Your task to perform on an android device: toggle pop-ups in chrome Image 0: 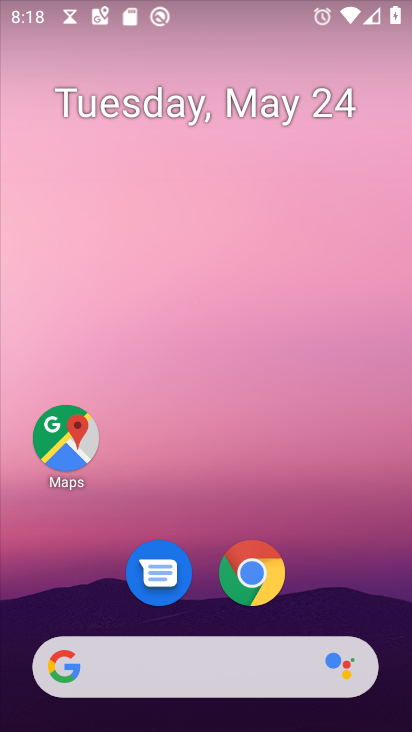
Step 0: drag from (348, 422) to (301, 131)
Your task to perform on an android device: toggle pop-ups in chrome Image 1: 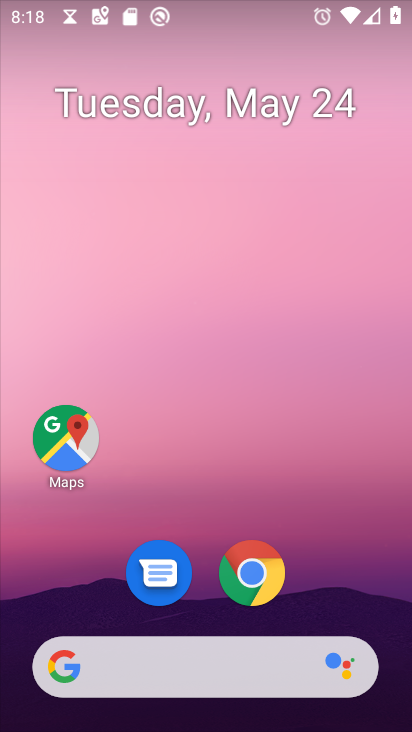
Step 1: click (252, 598)
Your task to perform on an android device: toggle pop-ups in chrome Image 2: 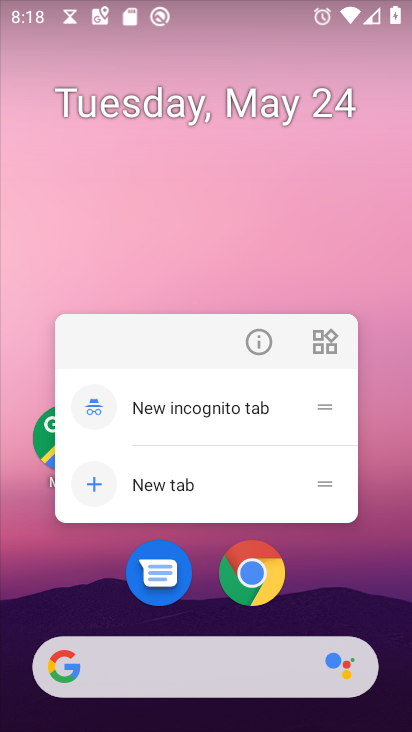
Step 2: click (263, 576)
Your task to perform on an android device: toggle pop-ups in chrome Image 3: 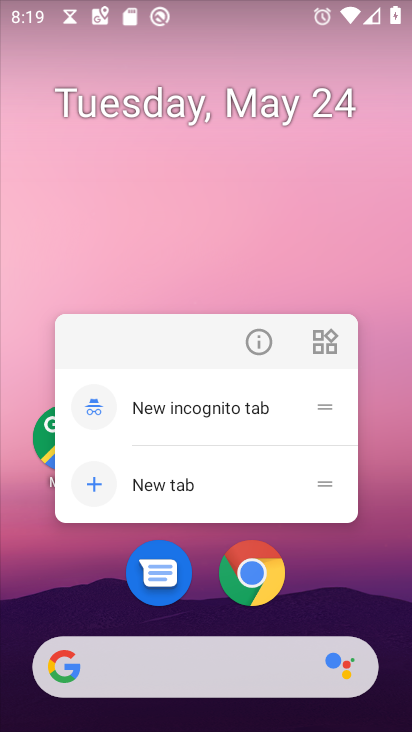
Step 3: click (249, 589)
Your task to perform on an android device: toggle pop-ups in chrome Image 4: 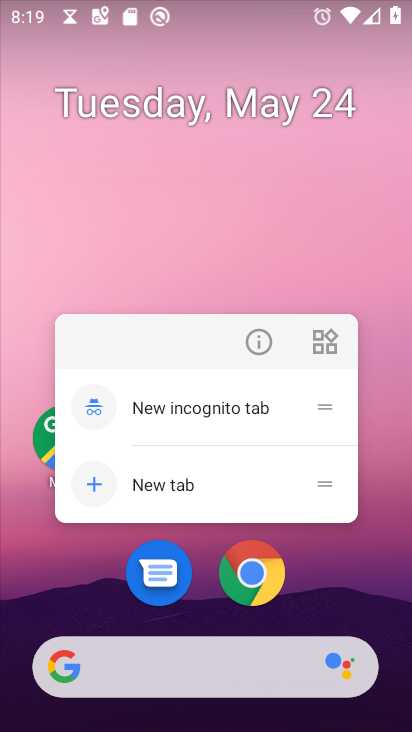
Step 4: click (249, 589)
Your task to perform on an android device: toggle pop-ups in chrome Image 5: 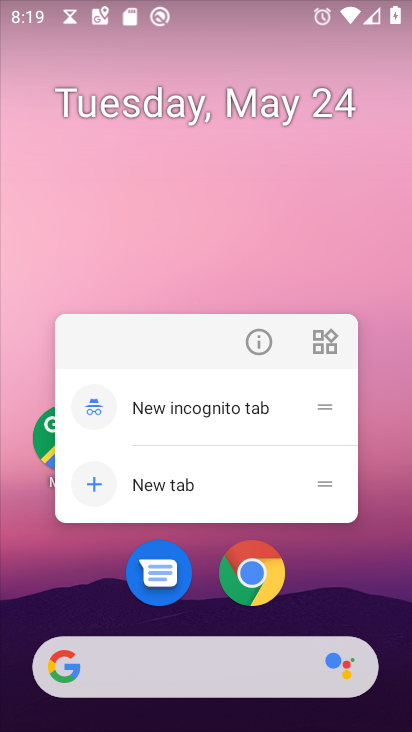
Step 5: click (278, 582)
Your task to perform on an android device: toggle pop-ups in chrome Image 6: 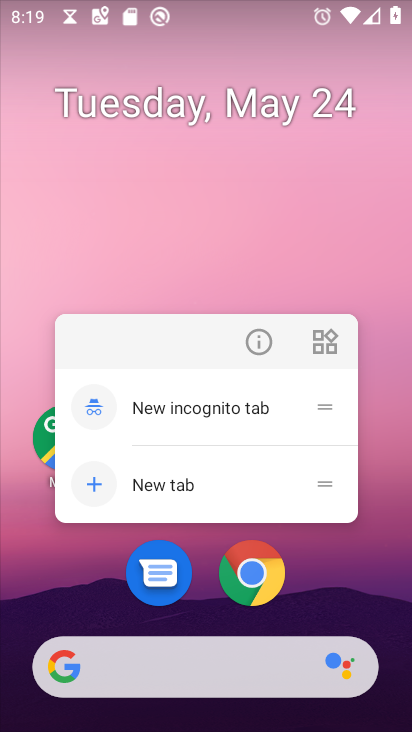
Step 6: click (278, 580)
Your task to perform on an android device: toggle pop-ups in chrome Image 7: 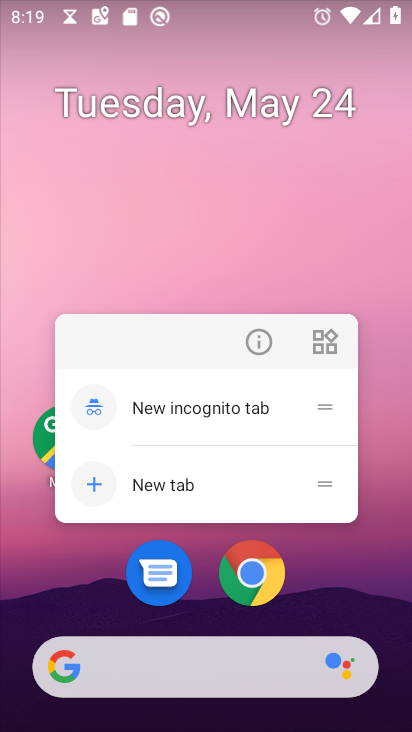
Step 7: click (278, 579)
Your task to perform on an android device: toggle pop-ups in chrome Image 8: 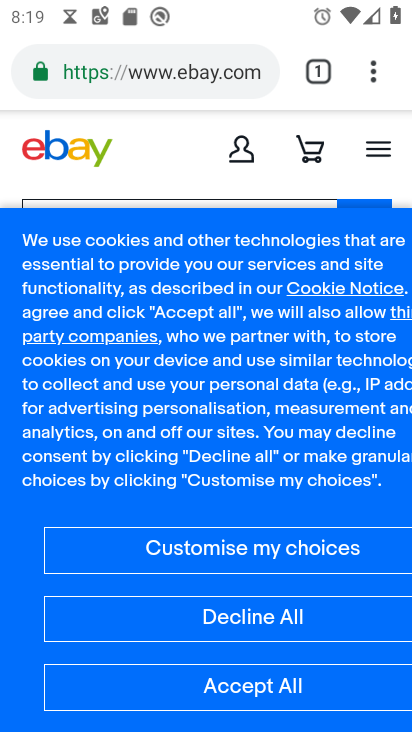
Step 8: click (376, 77)
Your task to perform on an android device: toggle pop-ups in chrome Image 9: 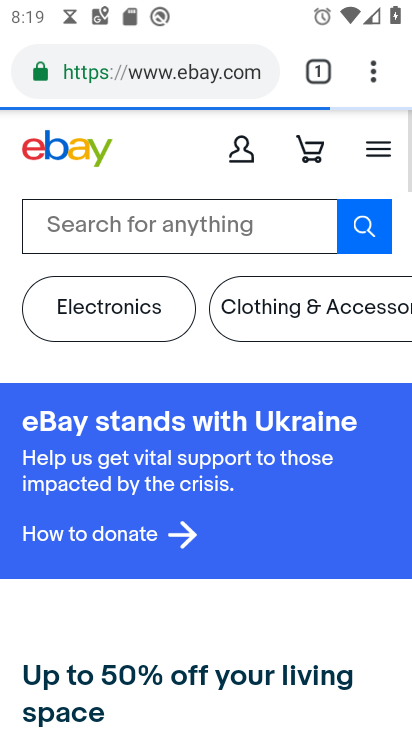
Step 9: drag from (376, 75) to (155, 556)
Your task to perform on an android device: toggle pop-ups in chrome Image 10: 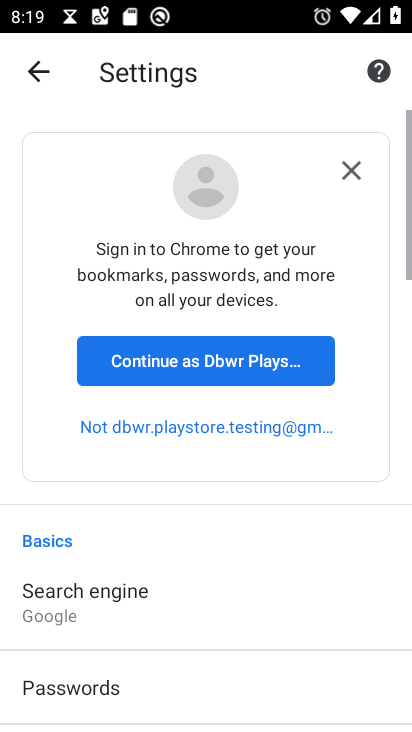
Step 10: drag from (168, 633) to (129, 64)
Your task to perform on an android device: toggle pop-ups in chrome Image 11: 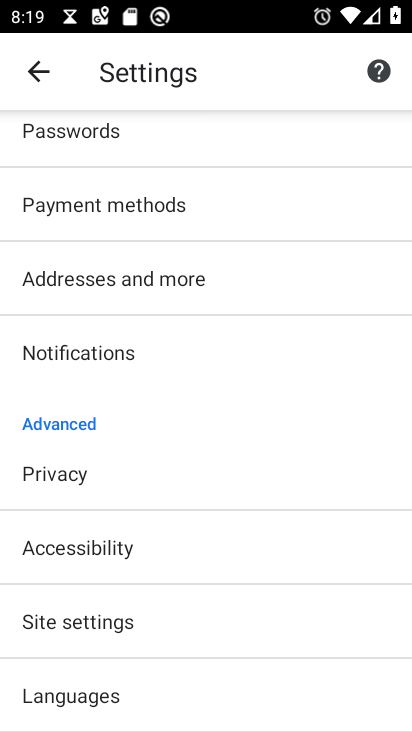
Step 11: click (107, 627)
Your task to perform on an android device: toggle pop-ups in chrome Image 12: 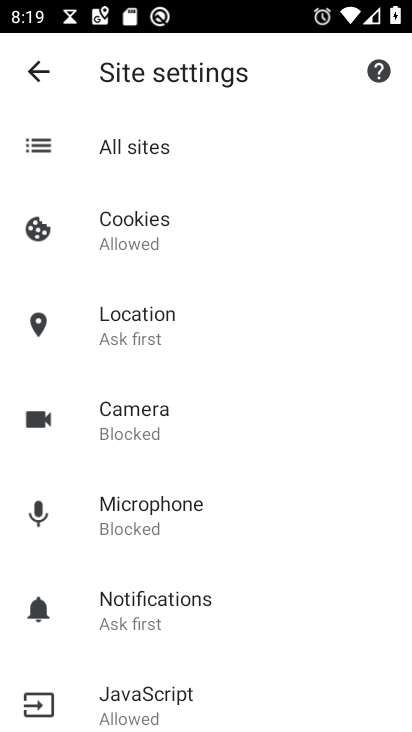
Step 12: drag from (215, 585) to (163, 192)
Your task to perform on an android device: toggle pop-ups in chrome Image 13: 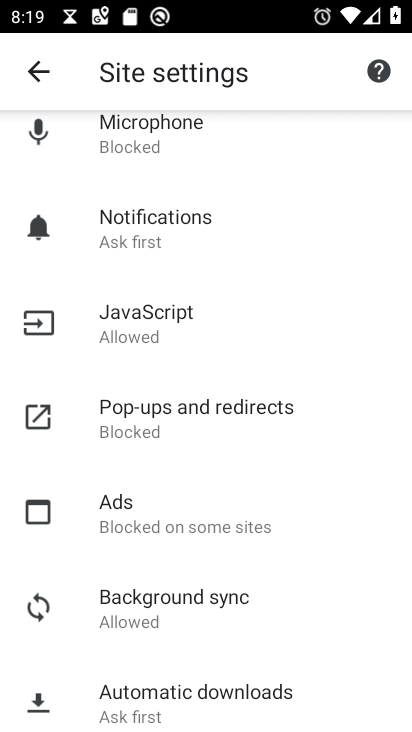
Step 13: click (217, 434)
Your task to perform on an android device: toggle pop-ups in chrome Image 14: 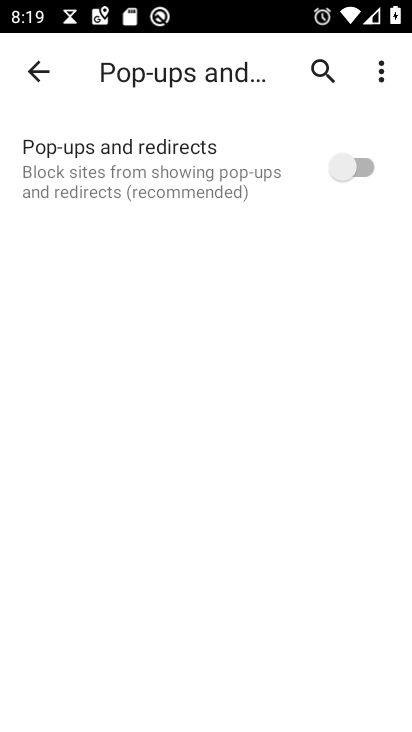
Step 14: click (347, 172)
Your task to perform on an android device: toggle pop-ups in chrome Image 15: 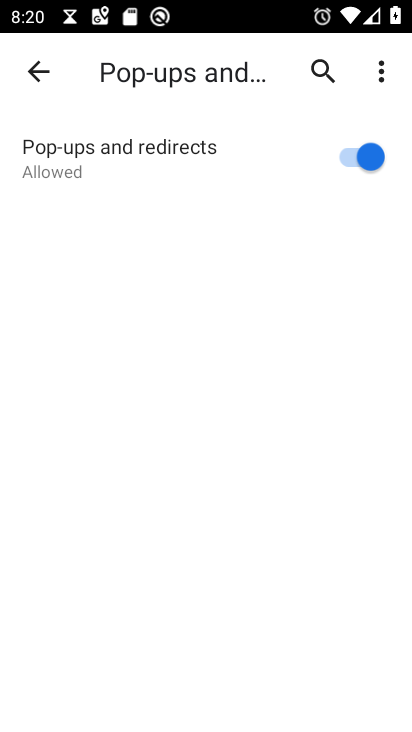
Step 15: task complete